Your task to perform on an android device: Search for rayovac triple a on bestbuy, select the first entry, add it to the cart, then select checkout. Image 0: 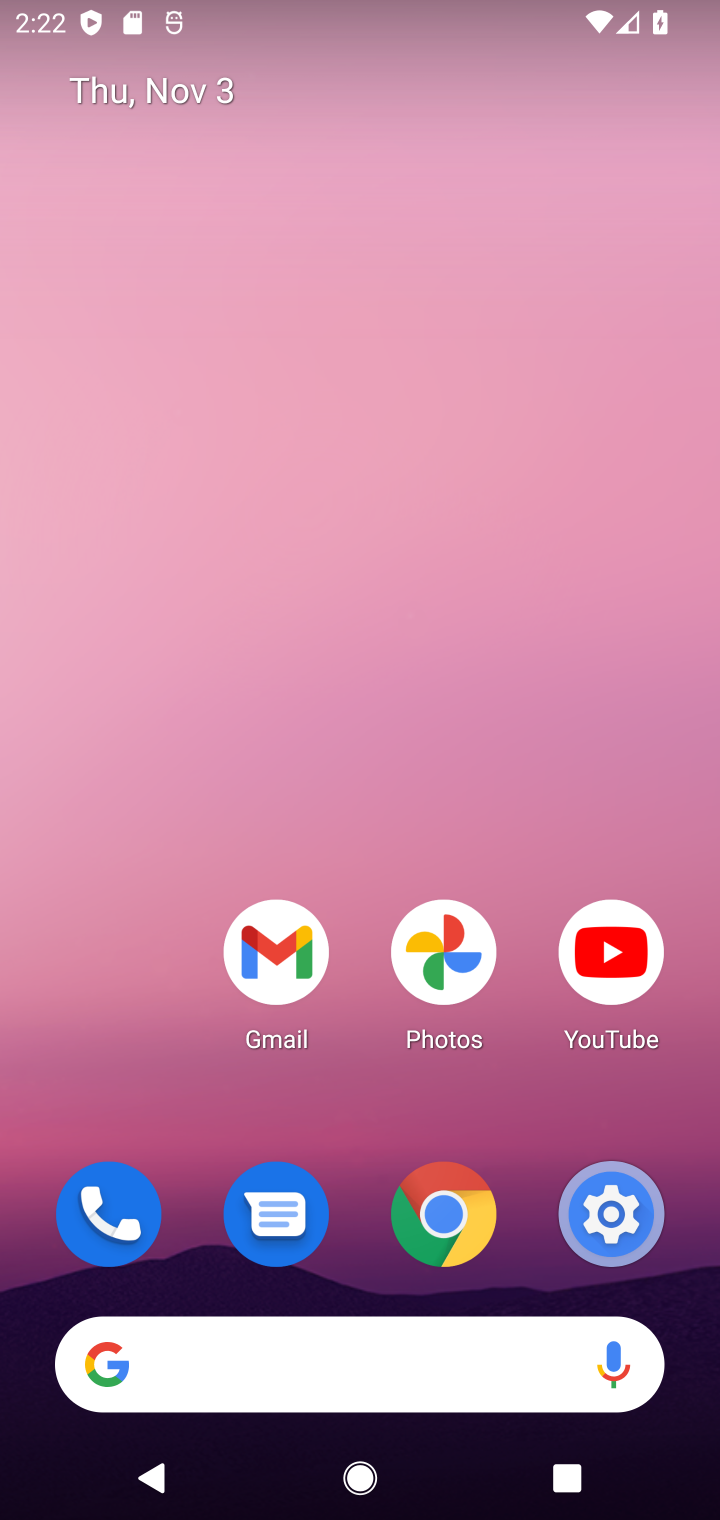
Step 0: click (258, 1368)
Your task to perform on an android device: Search for rayovac triple a on bestbuy, select the first entry, add it to the cart, then select checkout. Image 1: 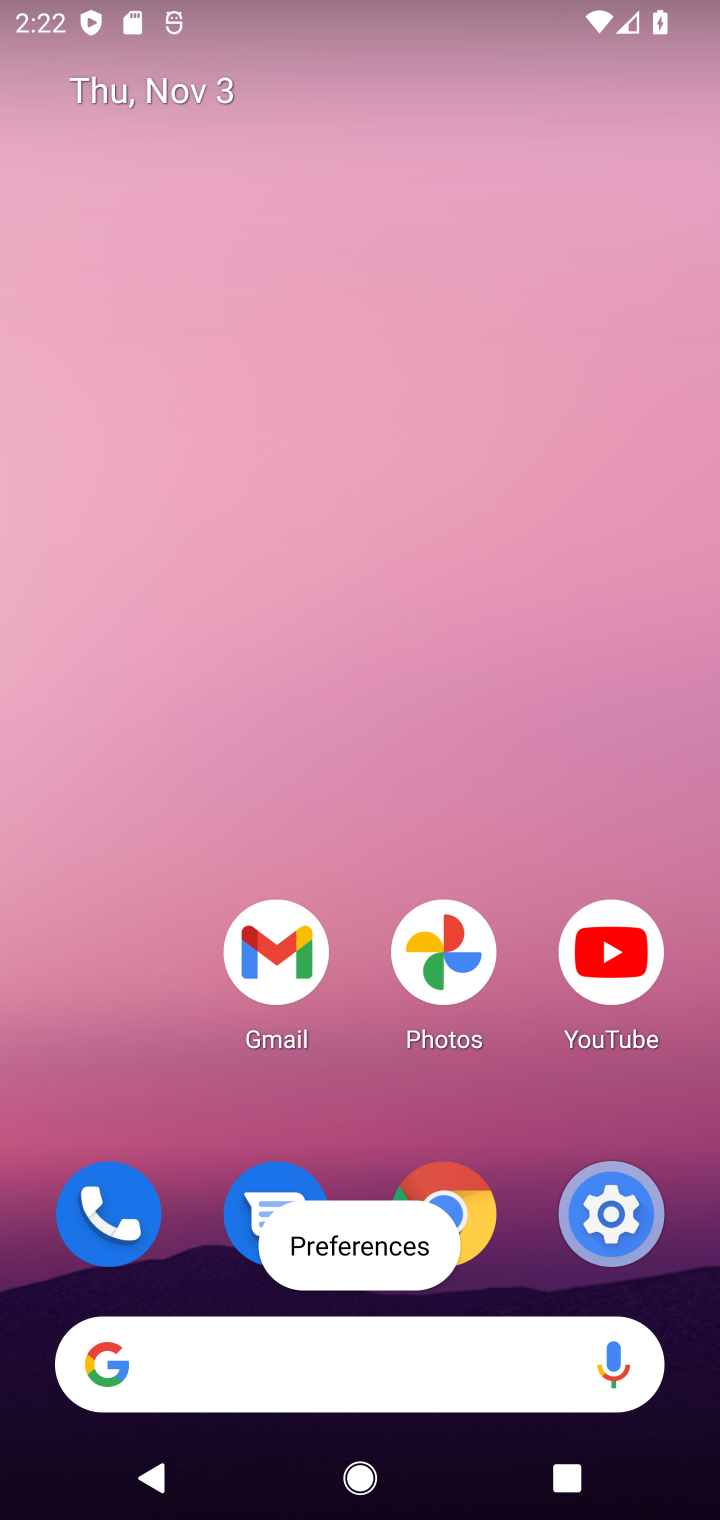
Step 1: click (261, 1366)
Your task to perform on an android device: Search for rayovac triple a on bestbuy, select the first entry, add it to the cart, then select checkout. Image 2: 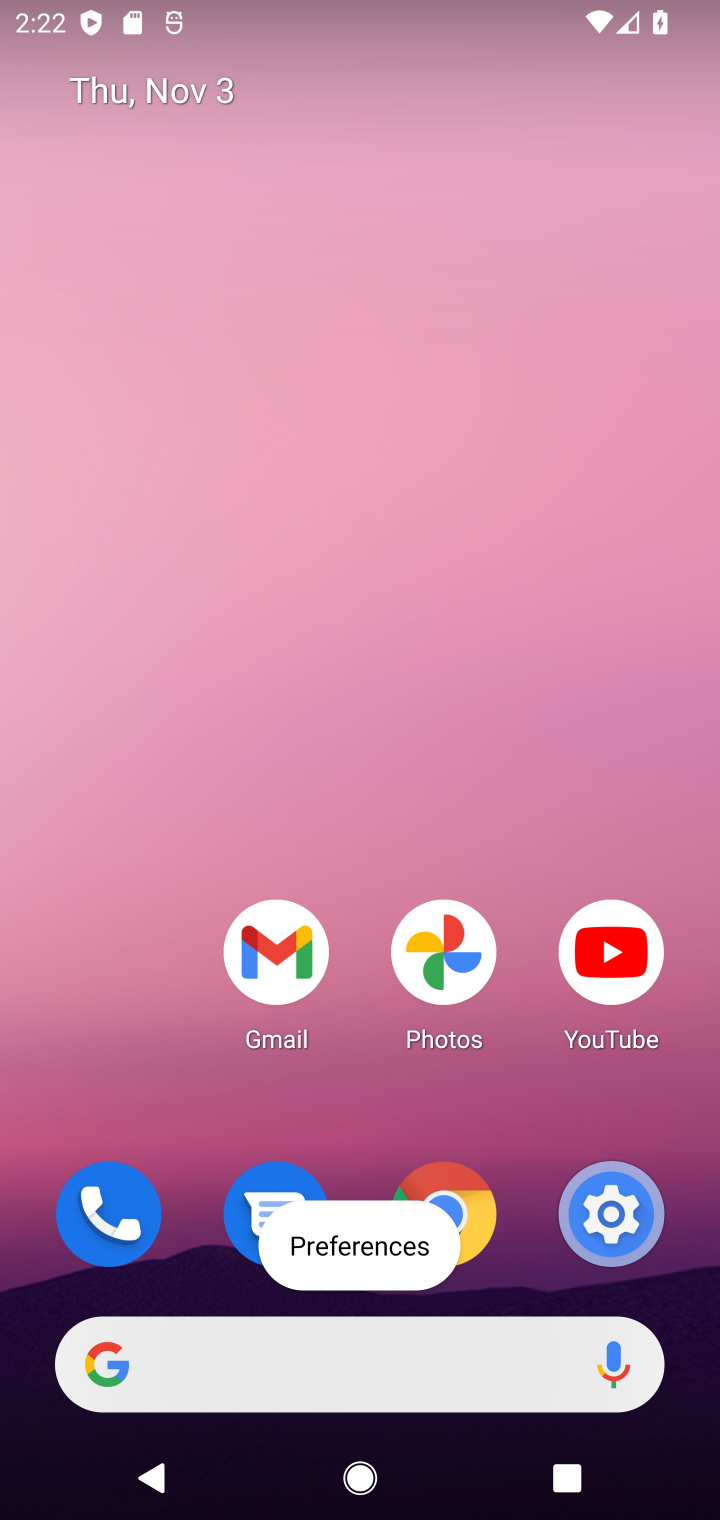
Step 2: click (290, 1374)
Your task to perform on an android device: Search for rayovac triple a on bestbuy, select the first entry, add it to the cart, then select checkout. Image 3: 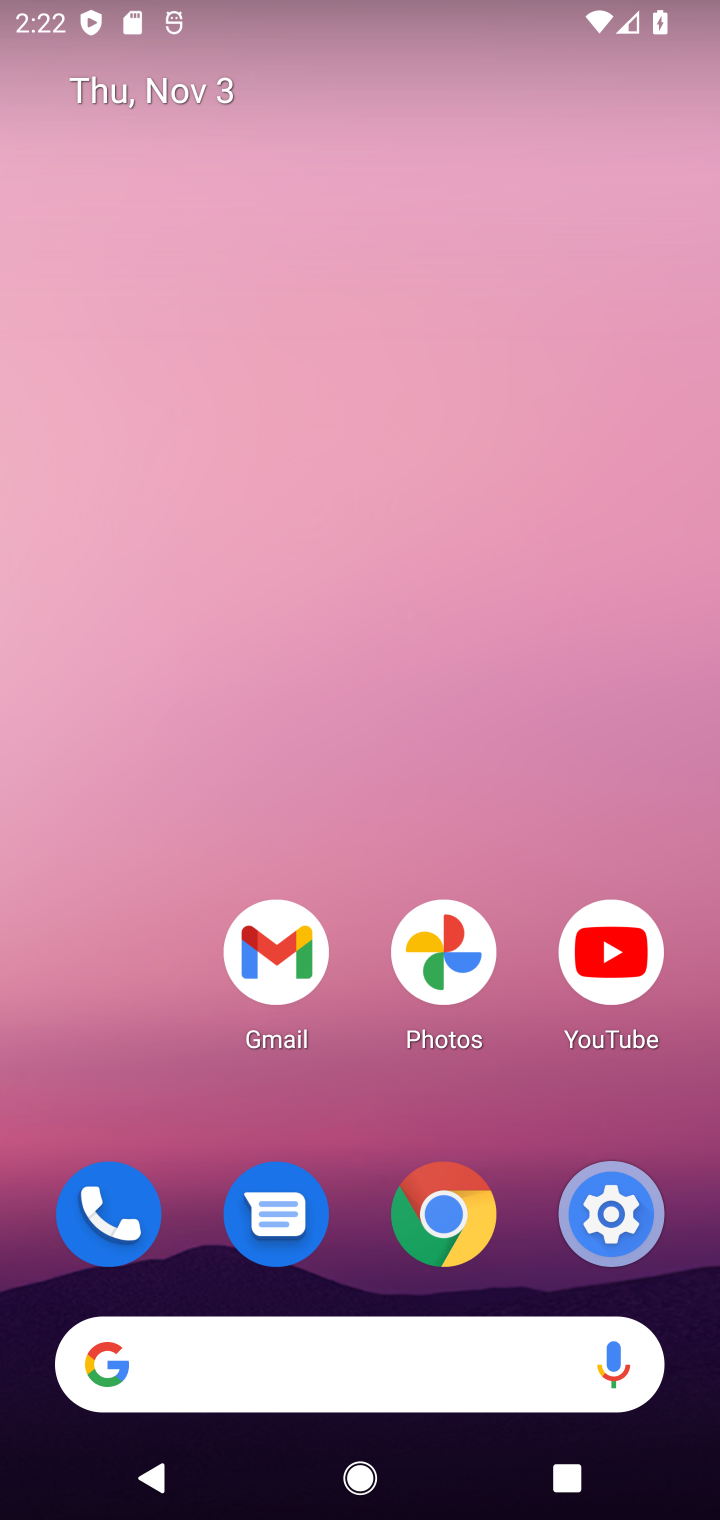
Step 3: click (290, 1374)
Your task to perform on an android device: Search for rayovac triple a on bestbuy, select the first entry, add it to the cart, then select checkout. Image 4: 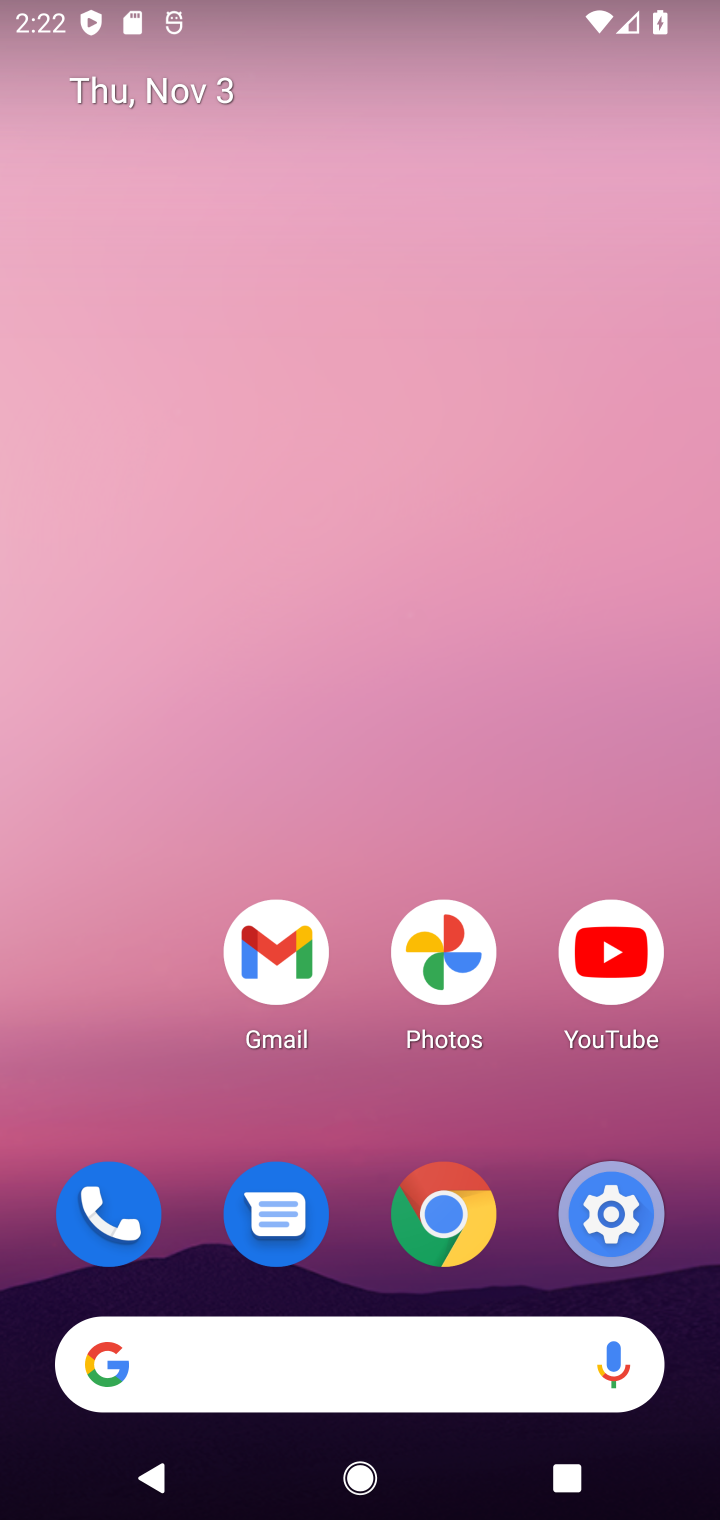
Step 4: click (292, 1374)
Your task to perform on an android device: Search for rayovac triple a on bestbuy, select the first entry, add it to the cart, then select checkout. Image 5: 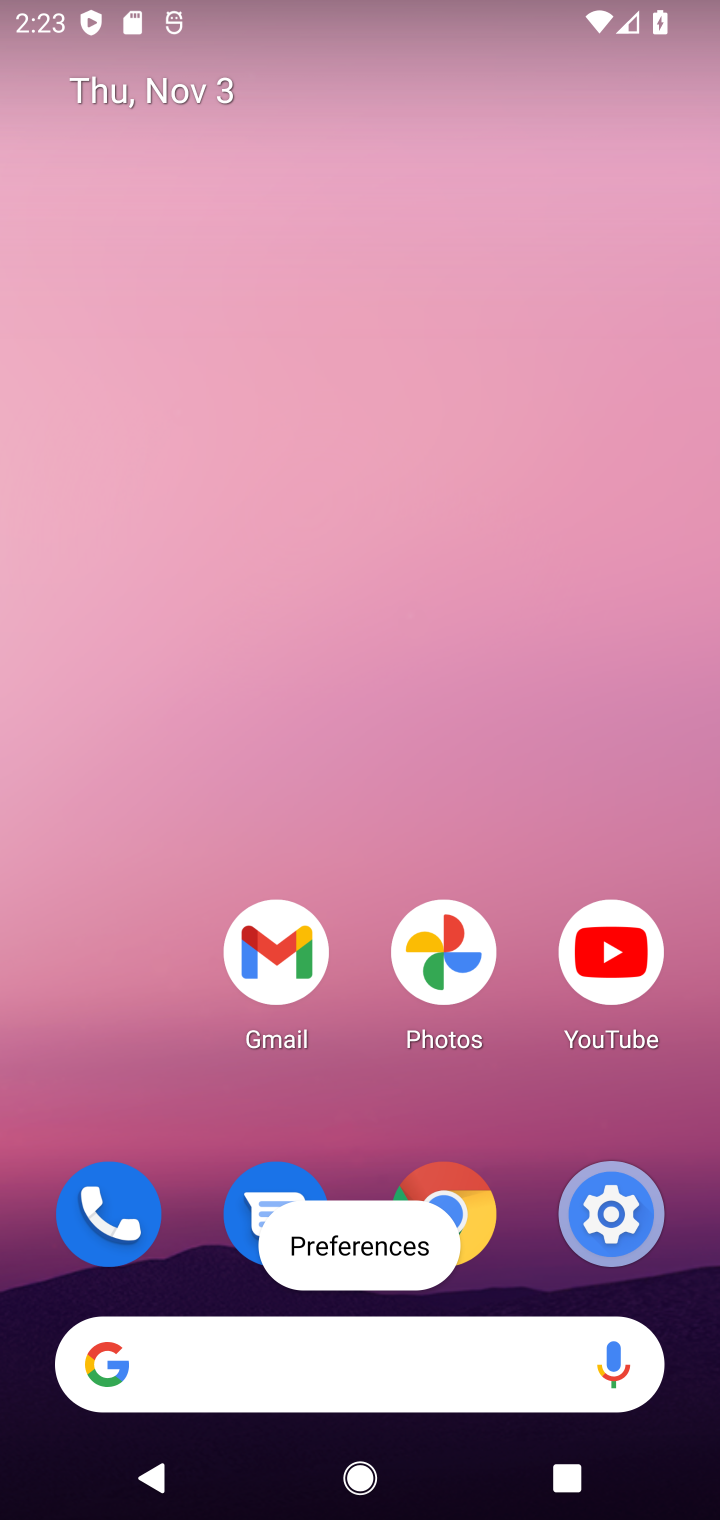
Step 5: click (292, 1374)
Your task to perform on an android device: Search for rayovac triple a on bestbuy, select the first entry, add it to the cart, then select checkout. Image 6: 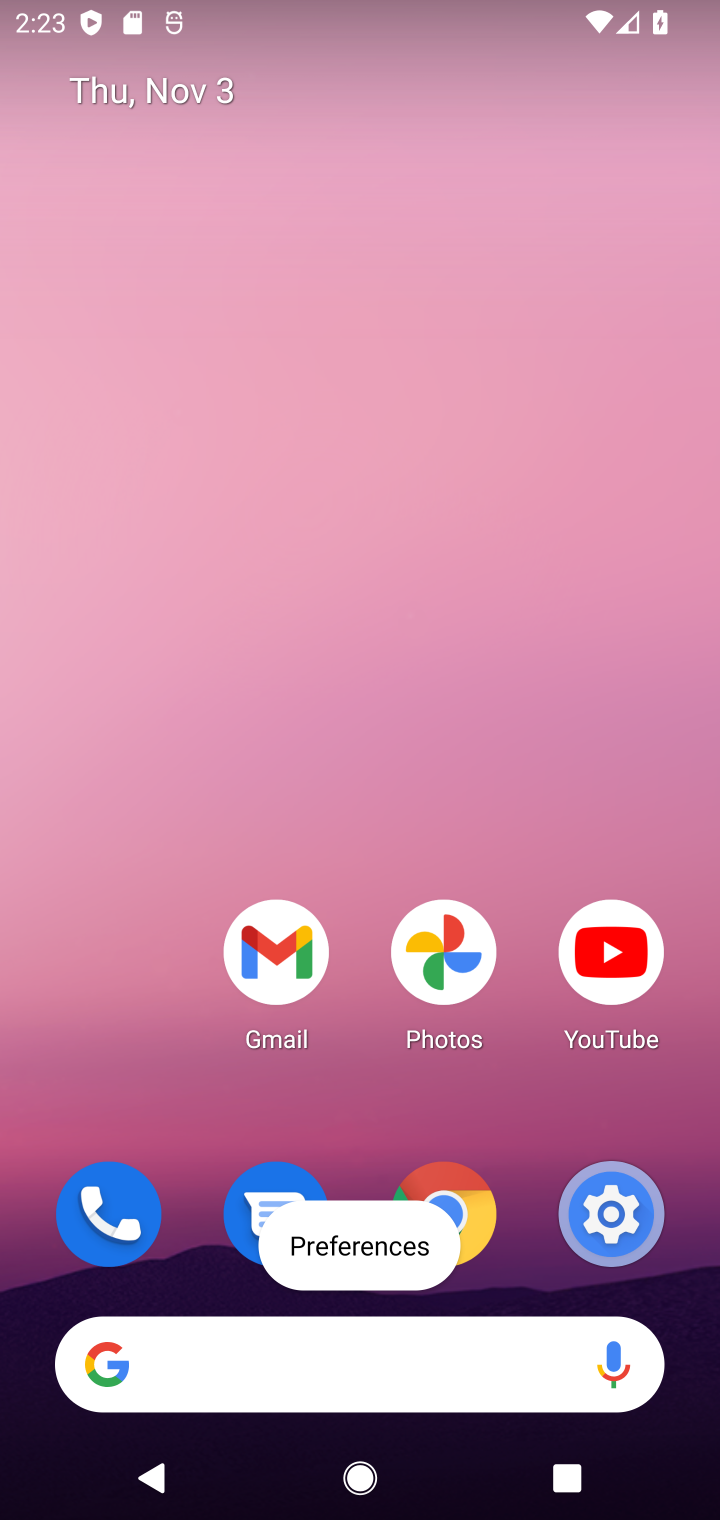
Step 6: click (461, 1220)
Your task to perform on an android device: Search for rayovac triple a on bestbuy, select the first entry, add it to the cart, then select checkout. Image 7: 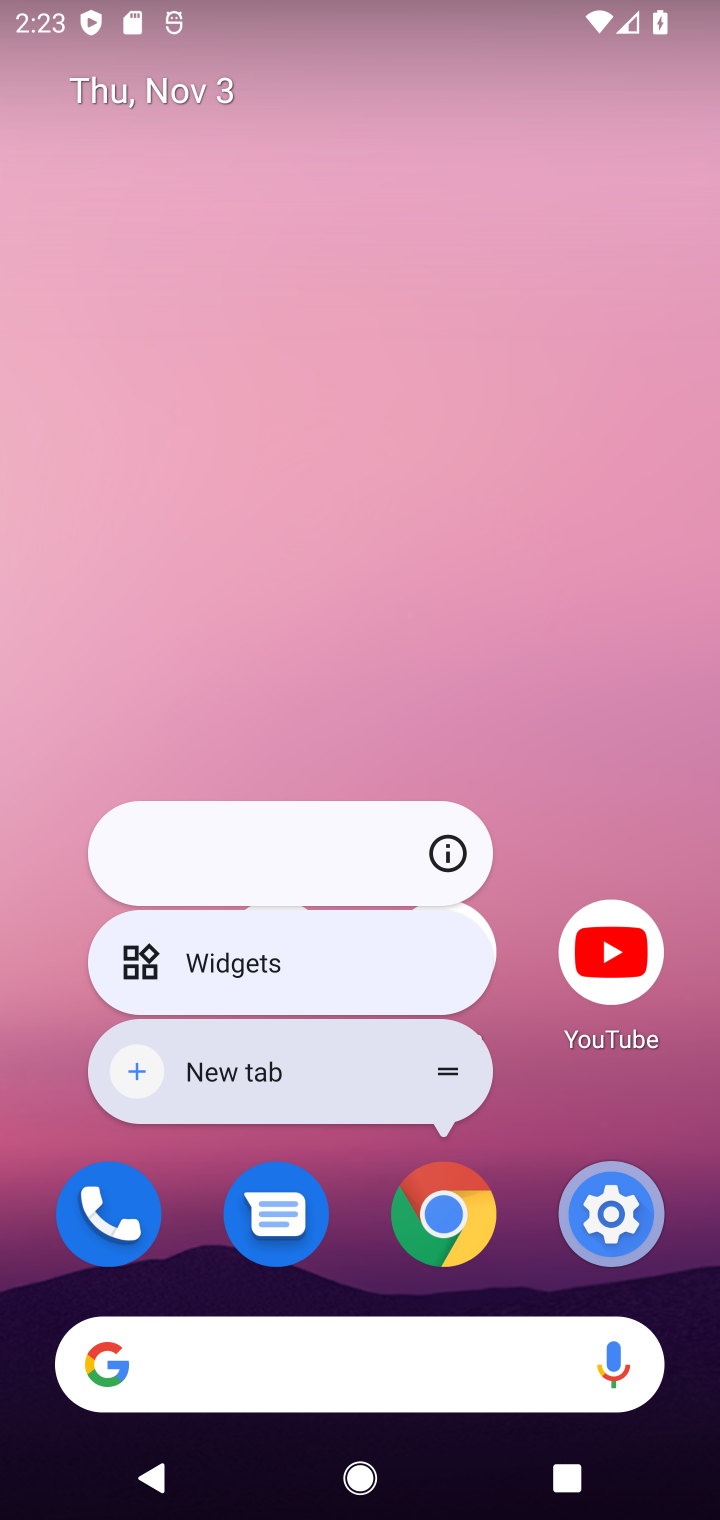
Step 7: click (445, 1238)
Your task to perform on an android device: Search for rayovac triple a on bestbuy, select the first entry, add it to the cart, then select checkout. Image 8: 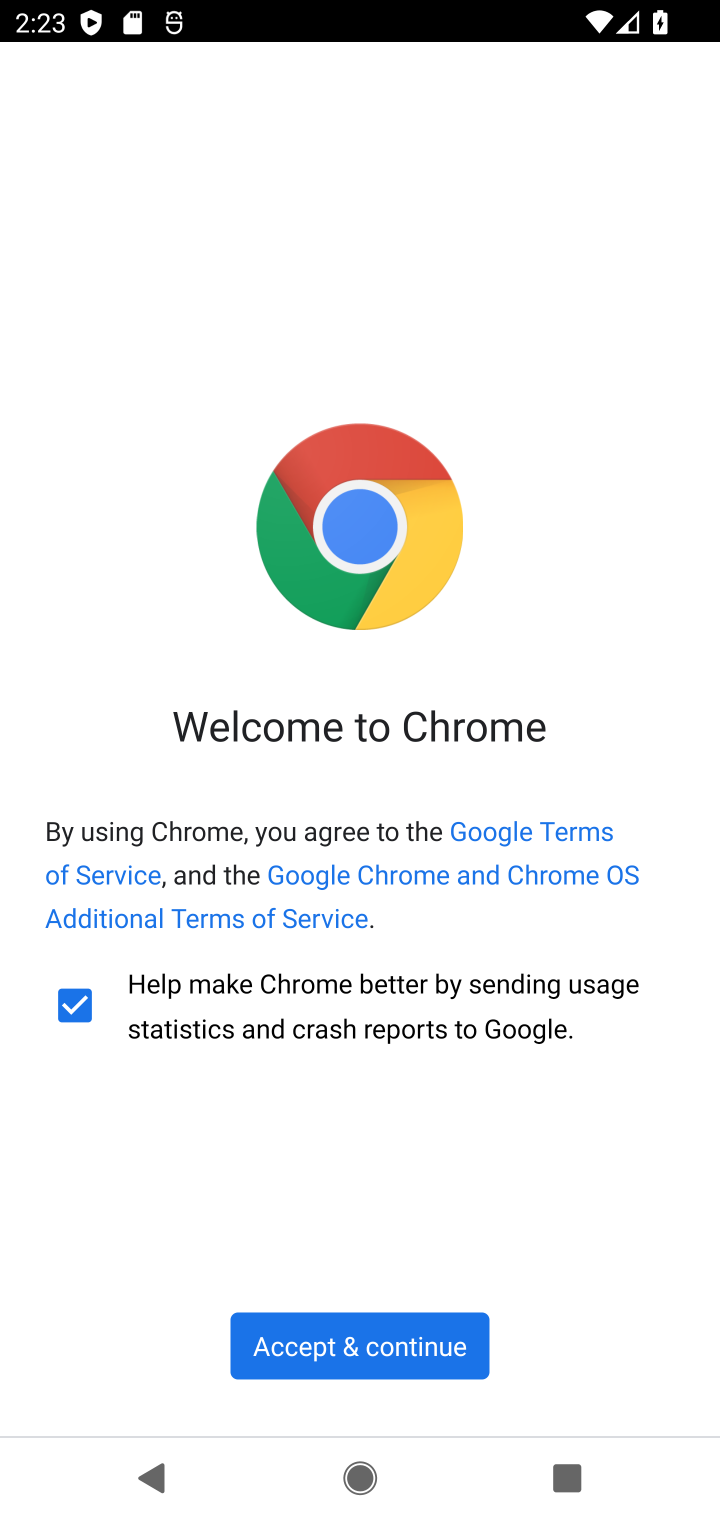
Step 8: click (346, 1368)
Your task to perform on an android device: Search for rayovac triple a on bestbuy, select the first entry, add it to the cart, then select checkout. Image 9: 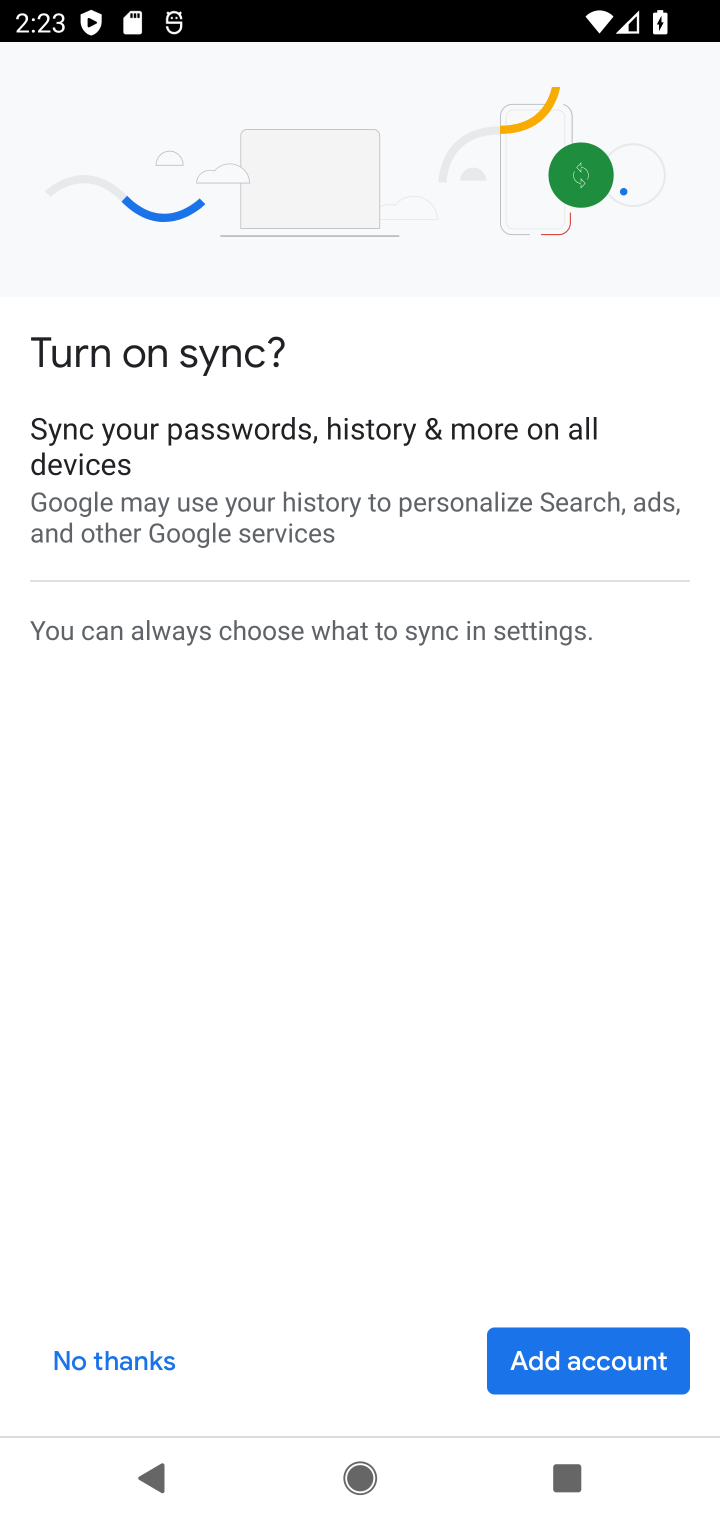
Step 9: click (521, 1365)
Your task to perform on an android device: Search for rayovac triple a on bestbuy, select the first entry, add it to the cart, then select checkout. Image 10: 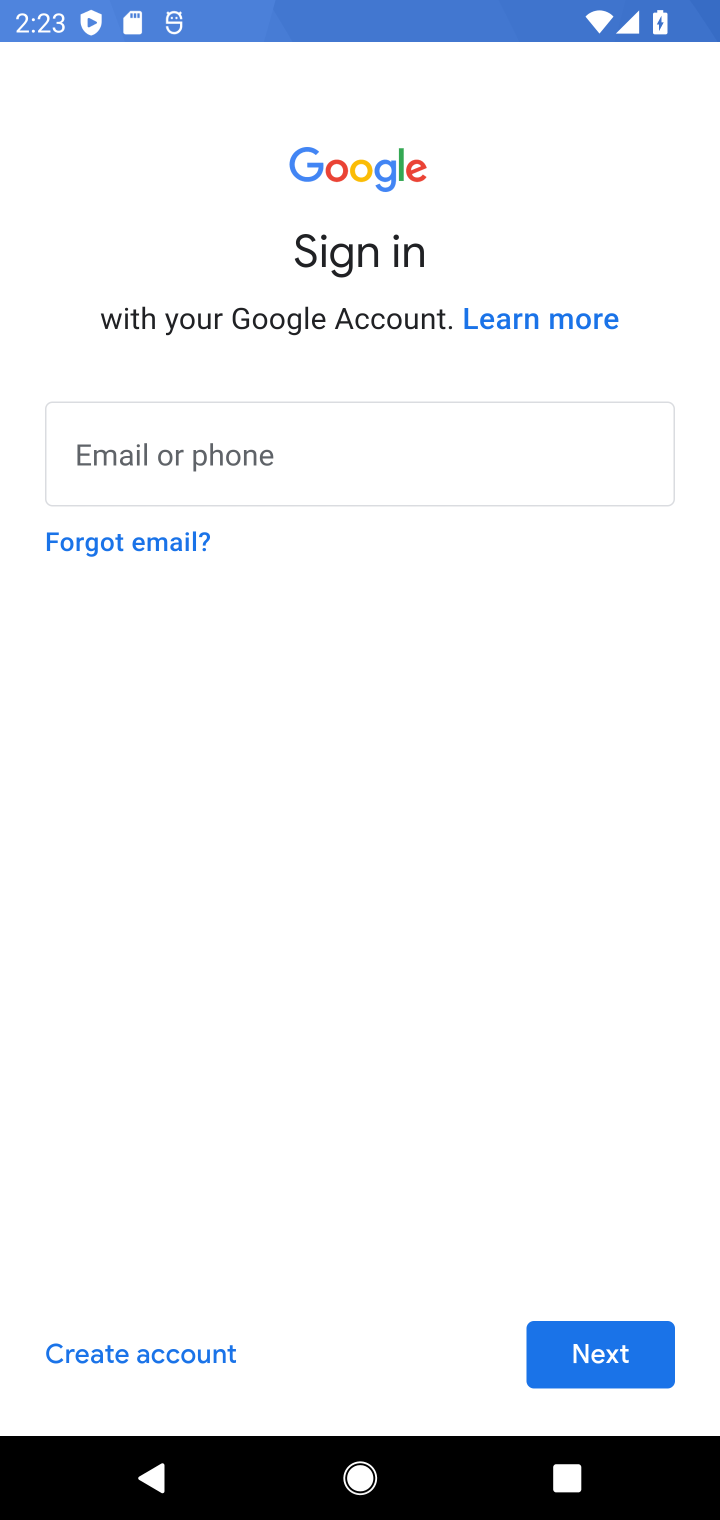
Step 10: click (589, 1350)
Your task to perform on an android device: Search for rayovac triple a on bestbuy, select the first entry, add it to the cart, then select checkout. Image 11: 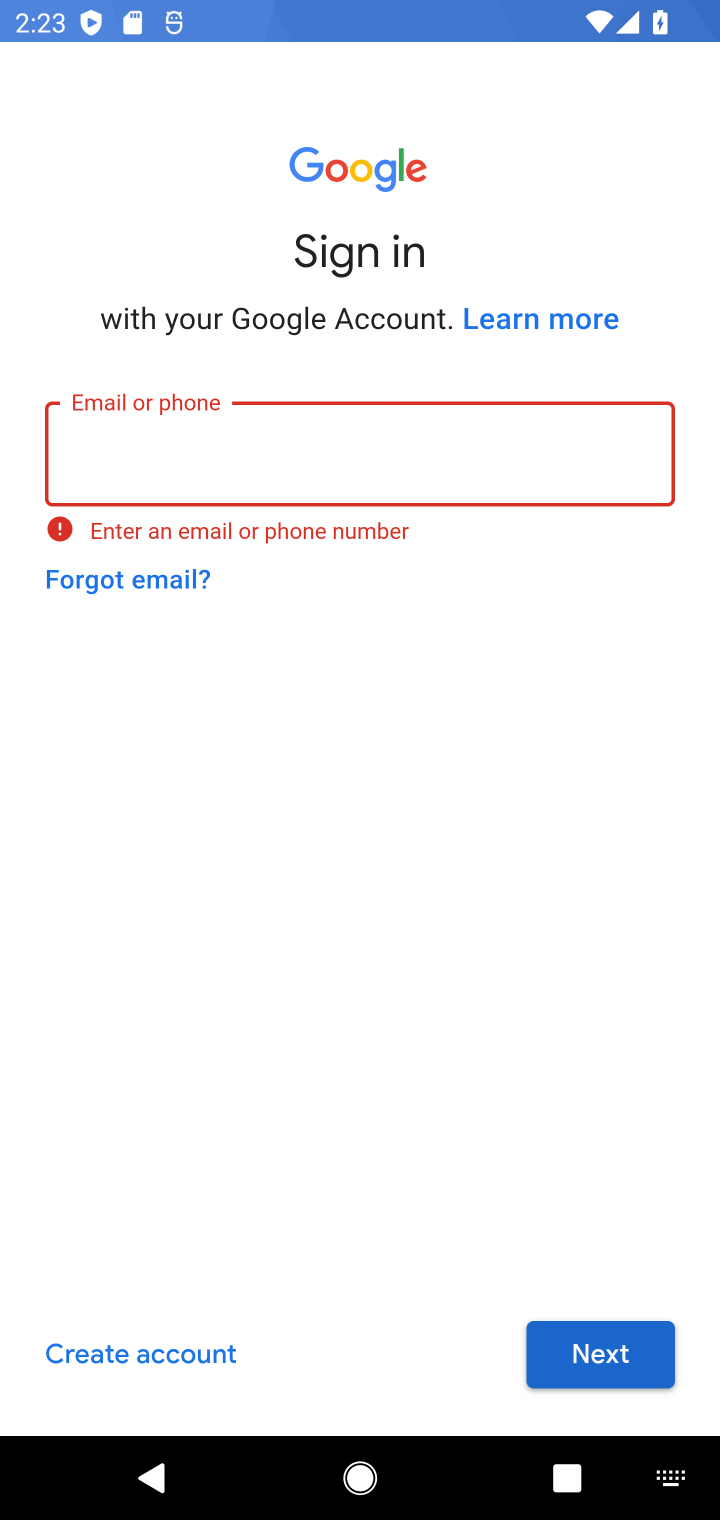
Step 11: press home button
Your task to perform on an android device: Search for rayovac triple a on bestbuy, select the first entry, add it to the cart, then select checkout. Image 12: 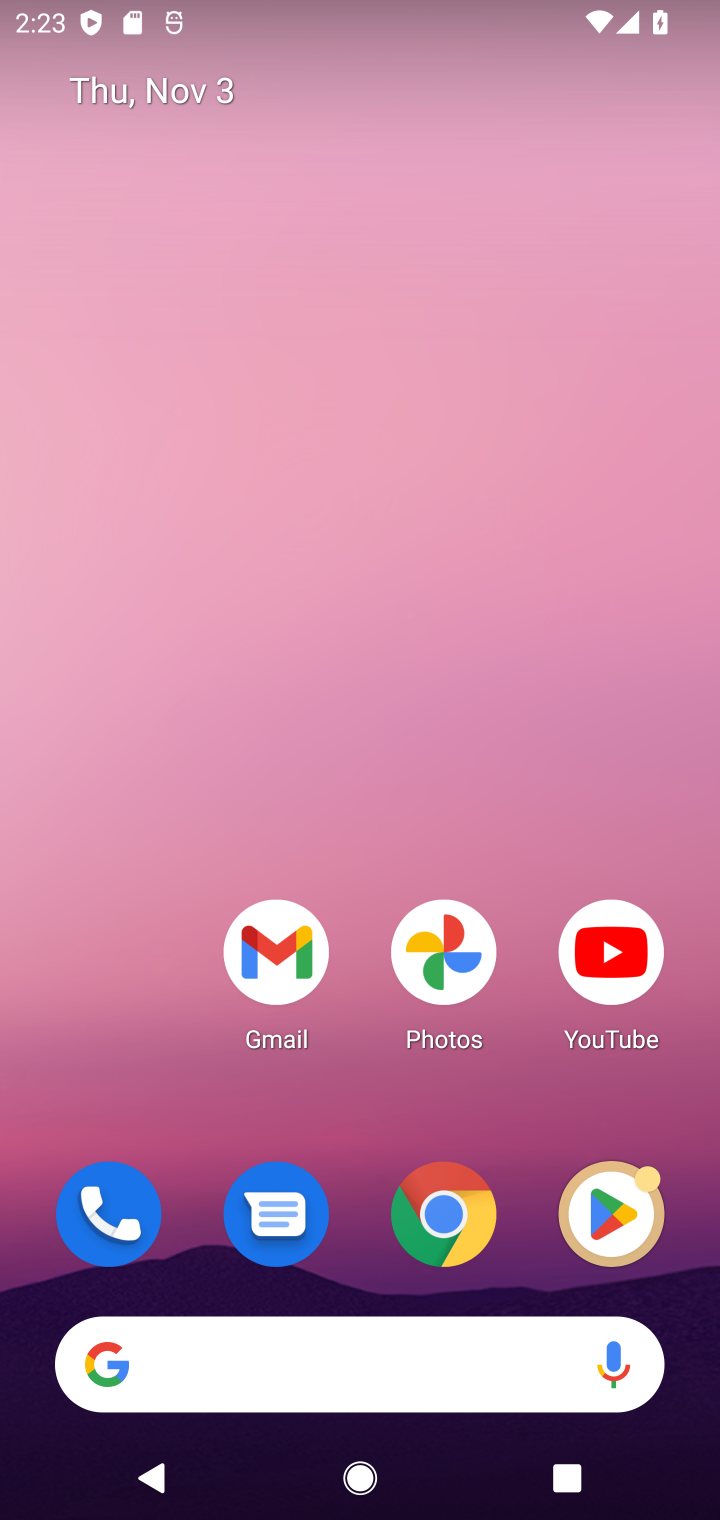
Step 12: click (333, 1356)
Your task to perform on an android device: Search for rayovac triple a on bestbuy, select the first entry, add it to the cart, then select checkout. Image 13: 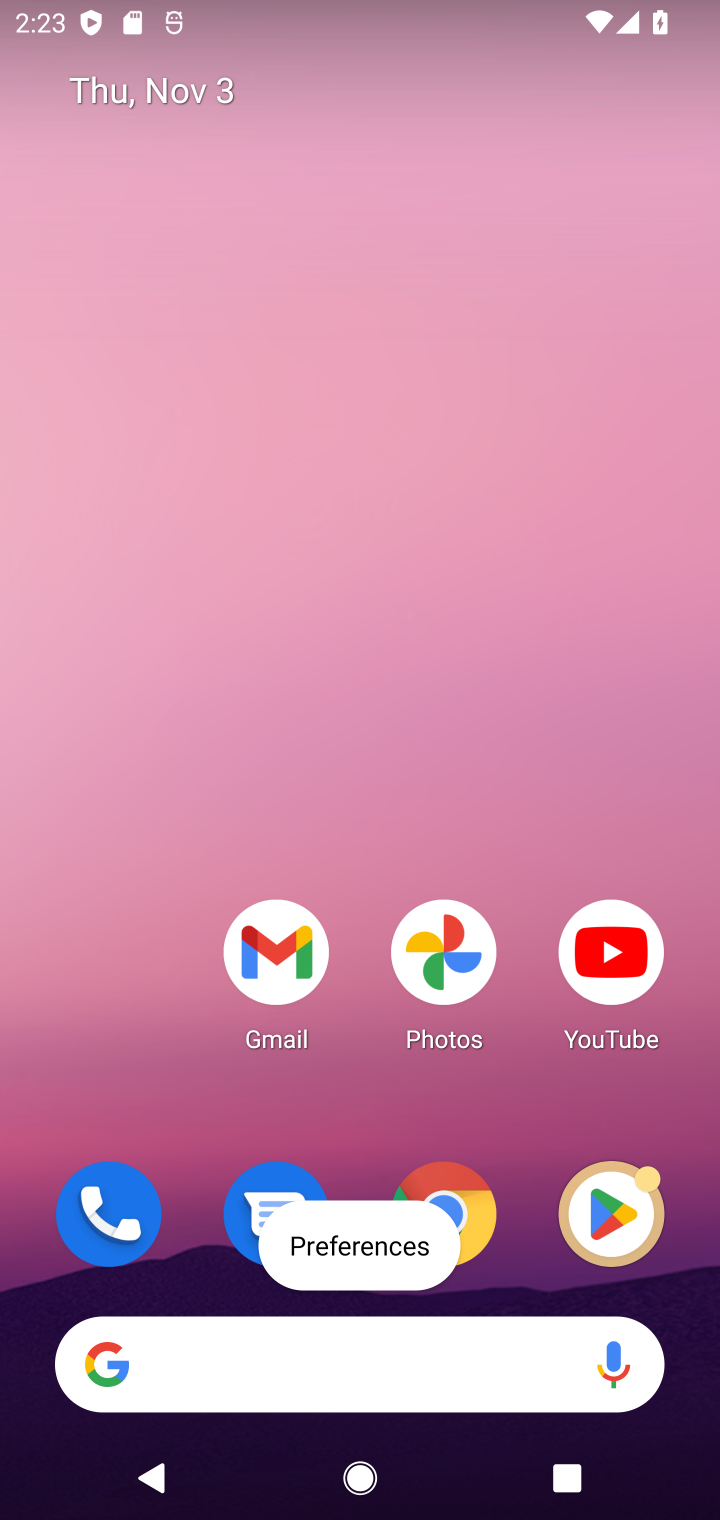
Step 13: click (449, 1216)
Your task to perform on an android device: Search for rayovac triple a on bestbuy, select the first entry, add it to the cart, then select checkout. Image 14: 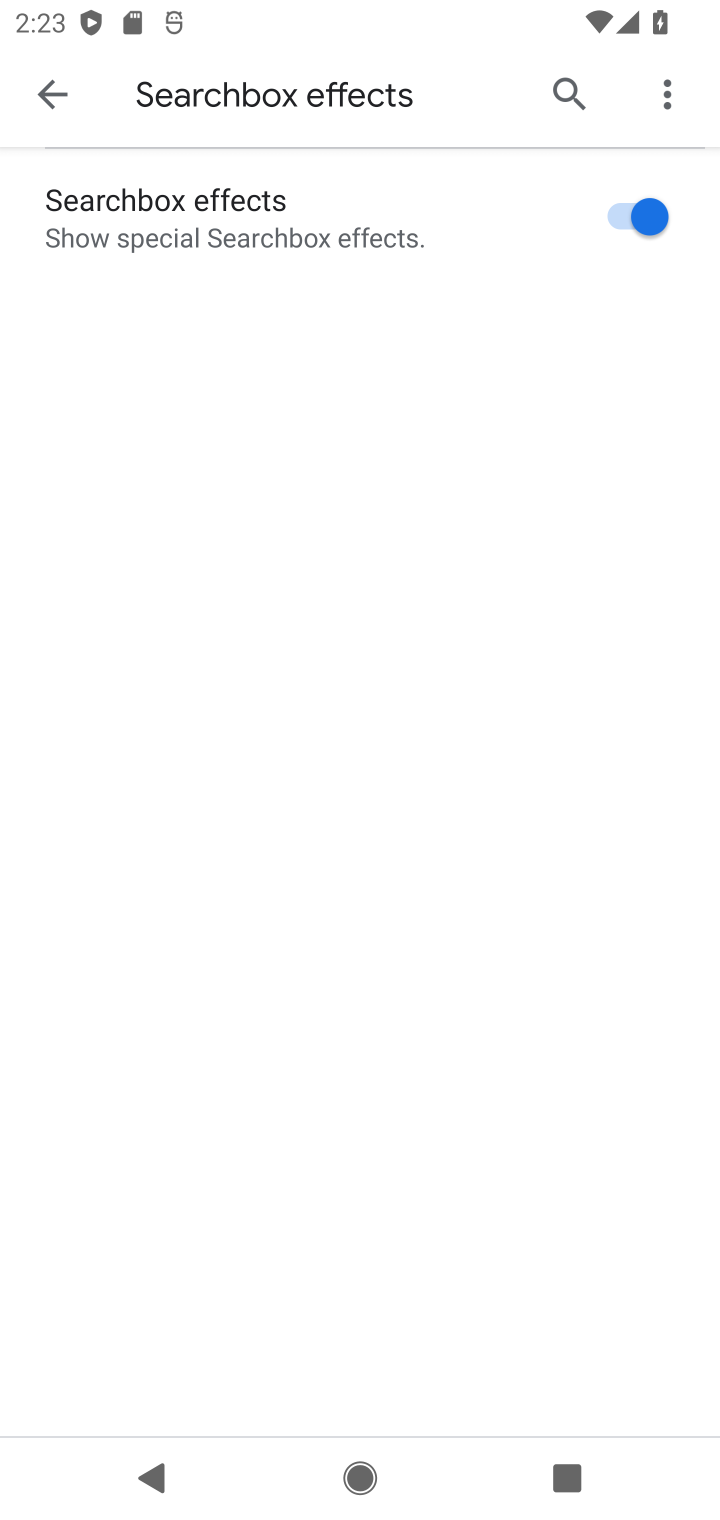
Step 14: click (63, 86)
Your task to perform on an android device: Search for rayovac triple a on bestbuy, select the first entry, add it to the cart, then select checkout. Image 15: 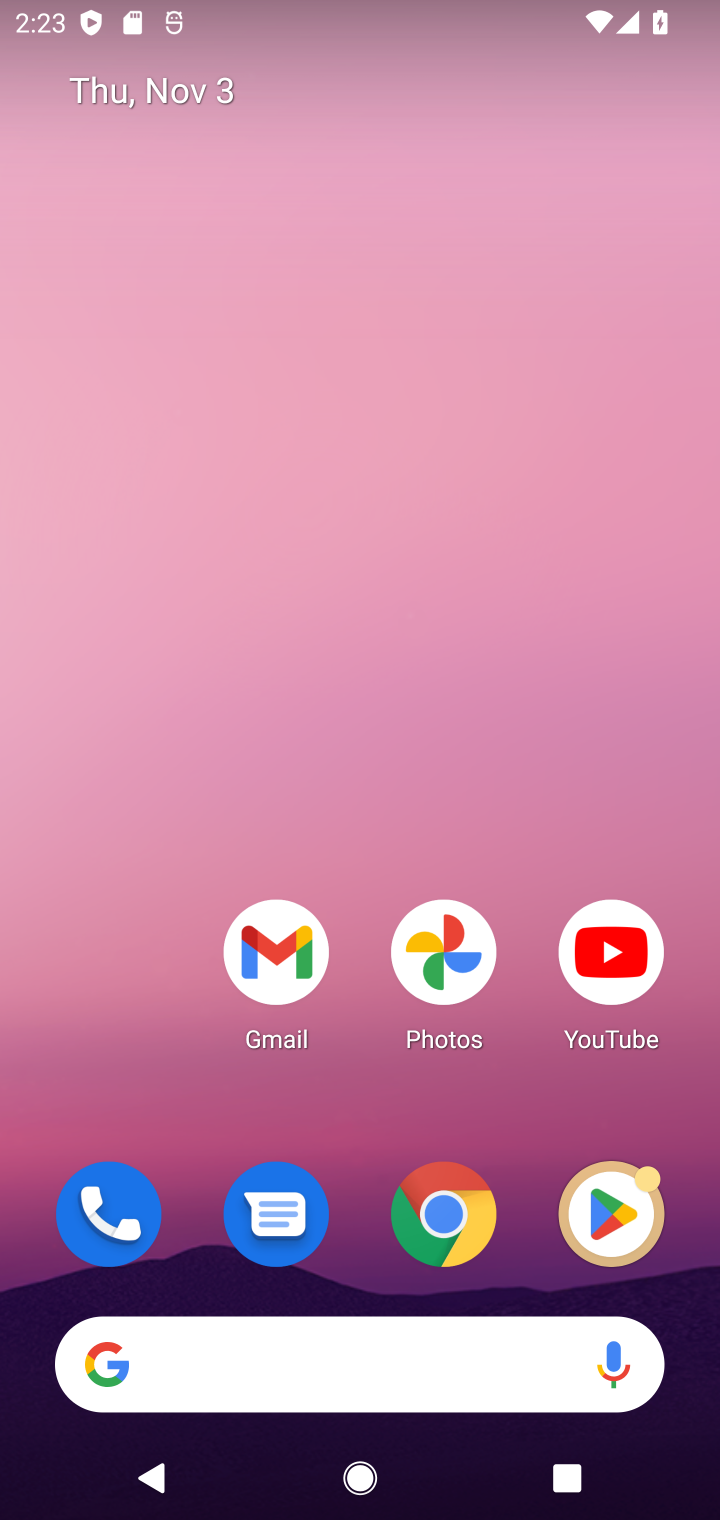
Step 15: click (444, 1332)
Your task to perform on an android device: Search for rayovac triple a on bestbuy, select the first entry, add it to the cart, then select checkout. Image 16: 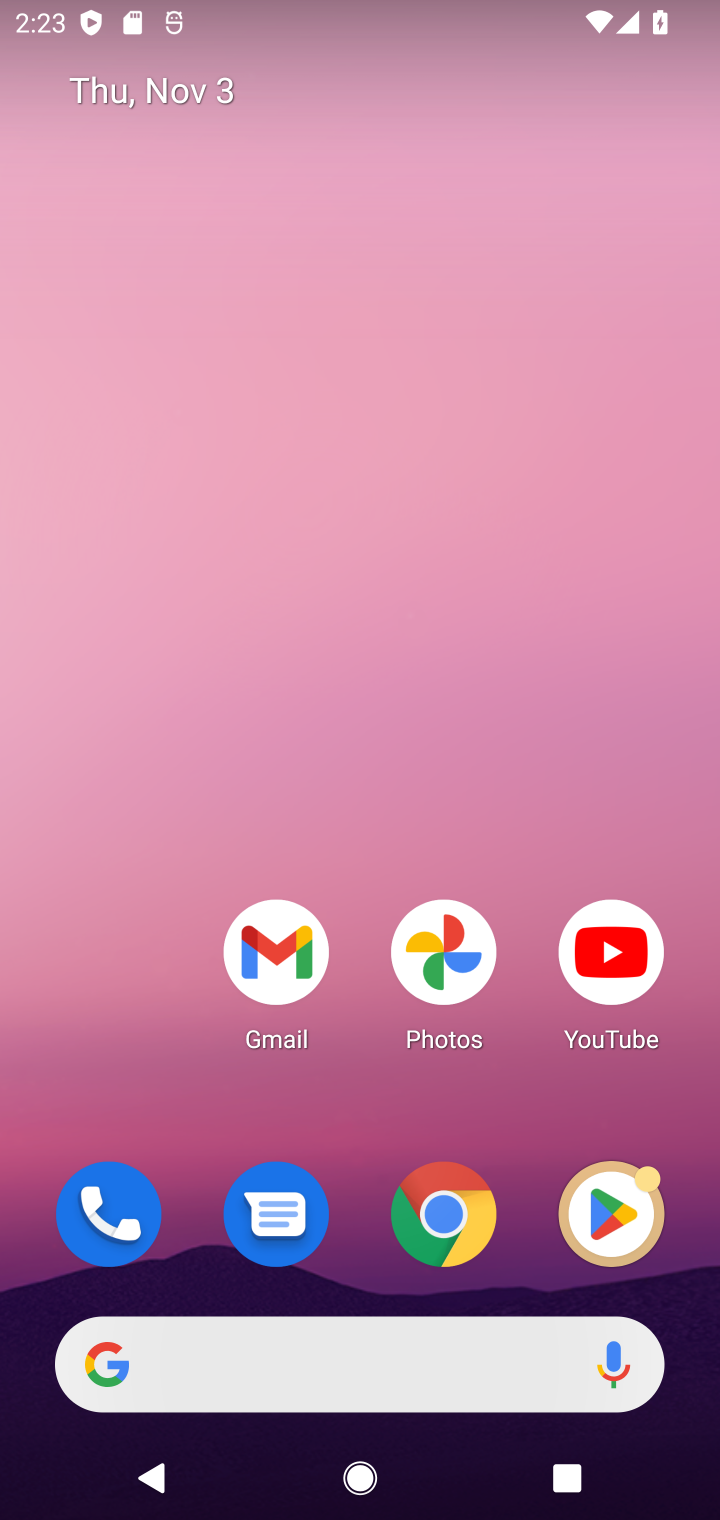
Step 16: click (444, 1340)
Your task to perform on an android device: Search for rayovac triple a on bestbuy, select the first entry, add it to the cart, then select checkout. Image 17: 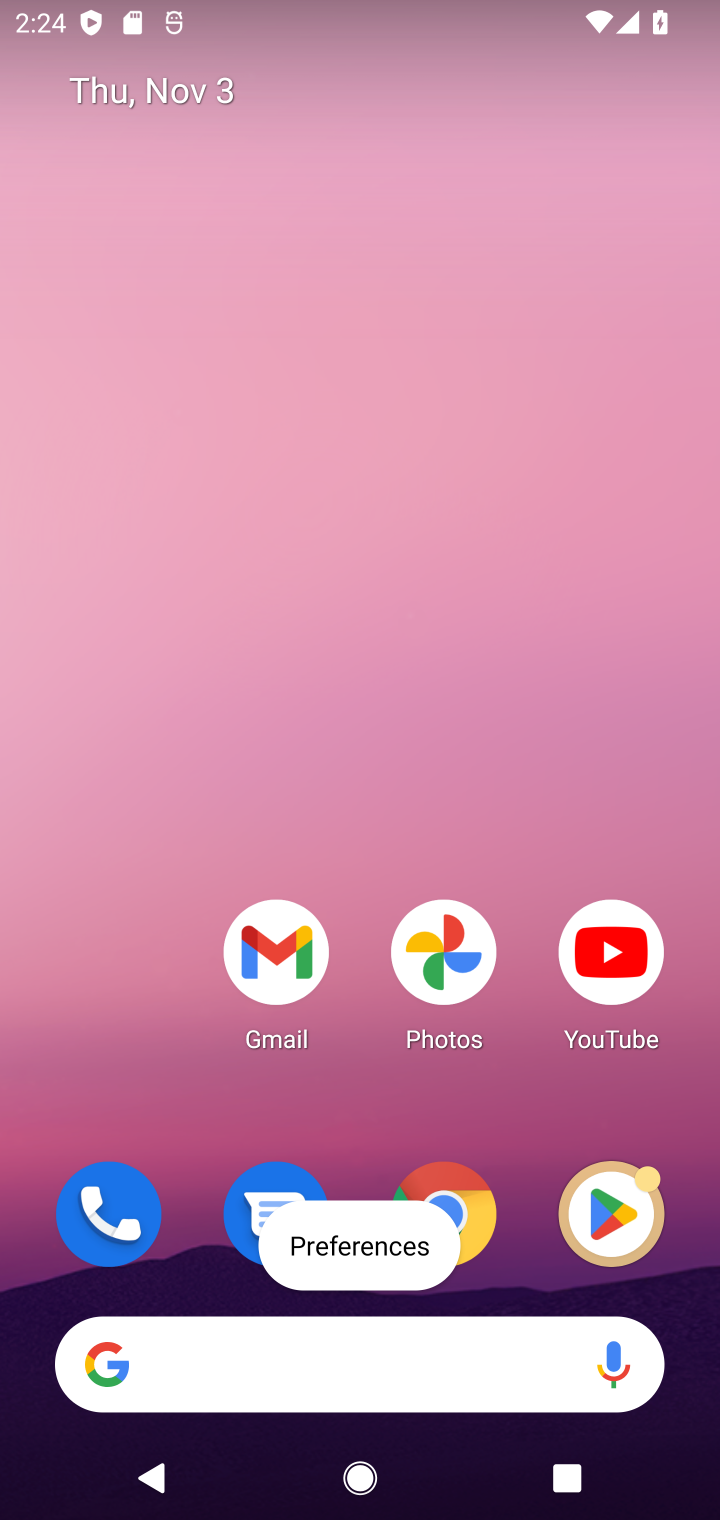
Step 17: click (465, 1213)
Your task to perform on an android device: Search for rayovac triple a on bestbuy, select the first entry, add it to the cart, then select checkout. Image 18: 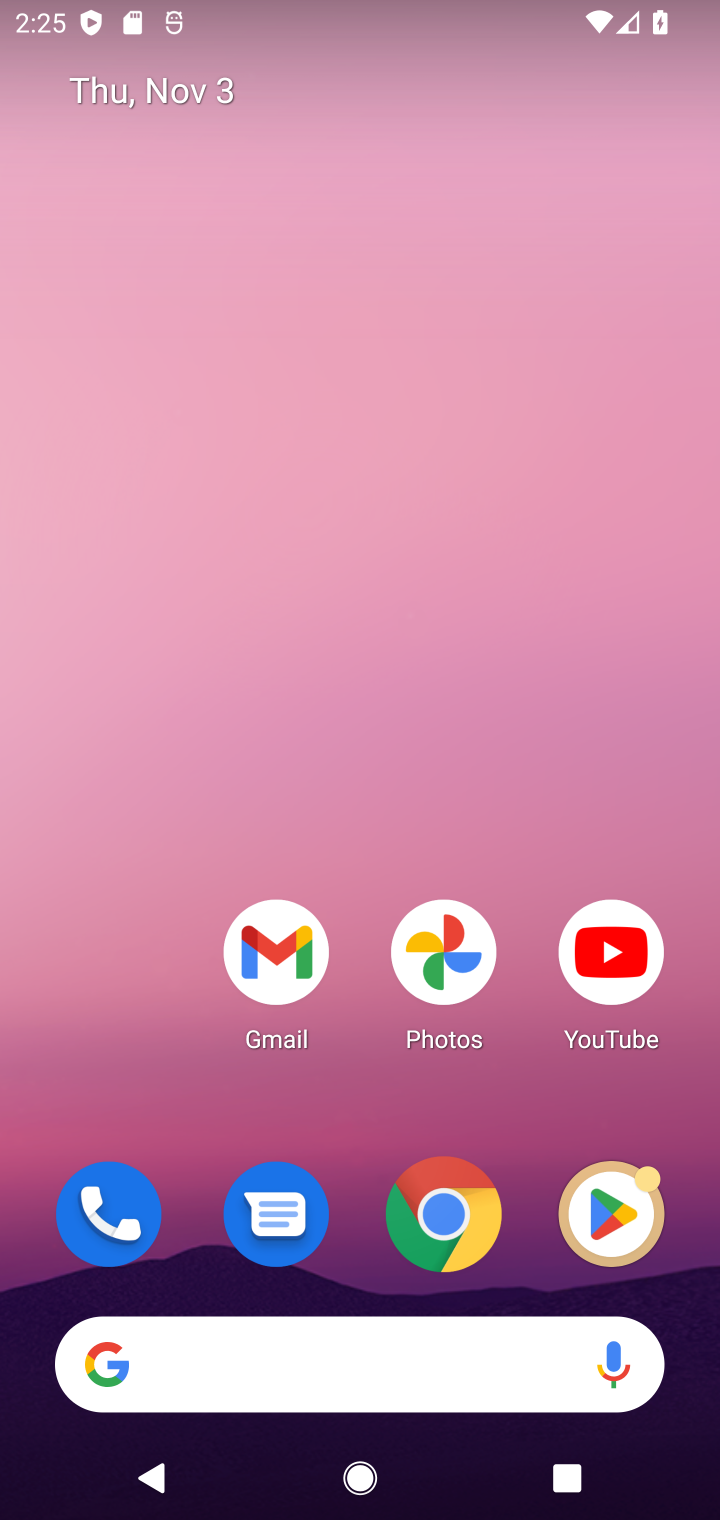
Step 18: click (445, 1210)
Your task to perform on an android device: Search for rayovac triple a on bestbuy, select the first entry, add it to the cart, then select checkout. Image 19: 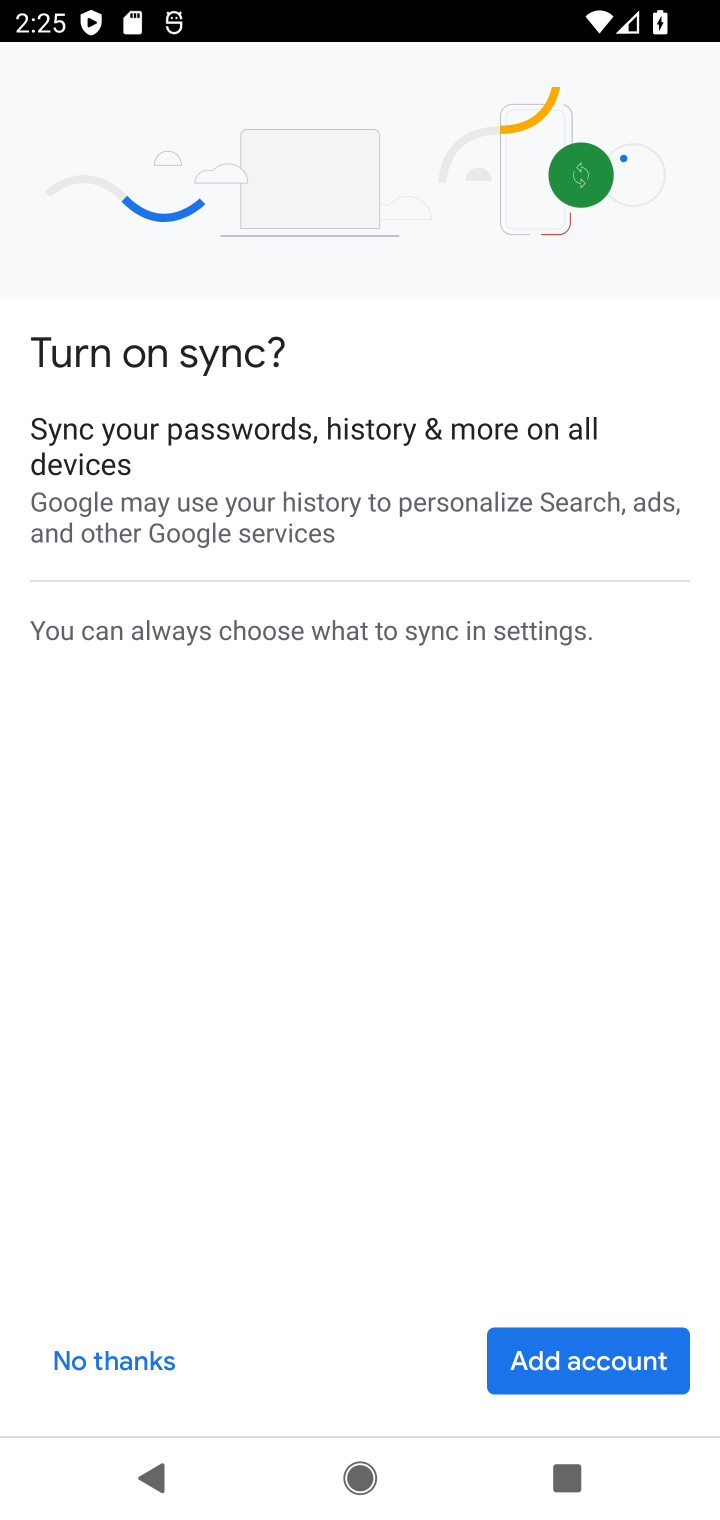
Step 19: click (264, 518)
Your task to perform on an android device: Search for rayovac triple a on bestbuy, select the first entry, add it to the cart, then select checkout. Image 20: 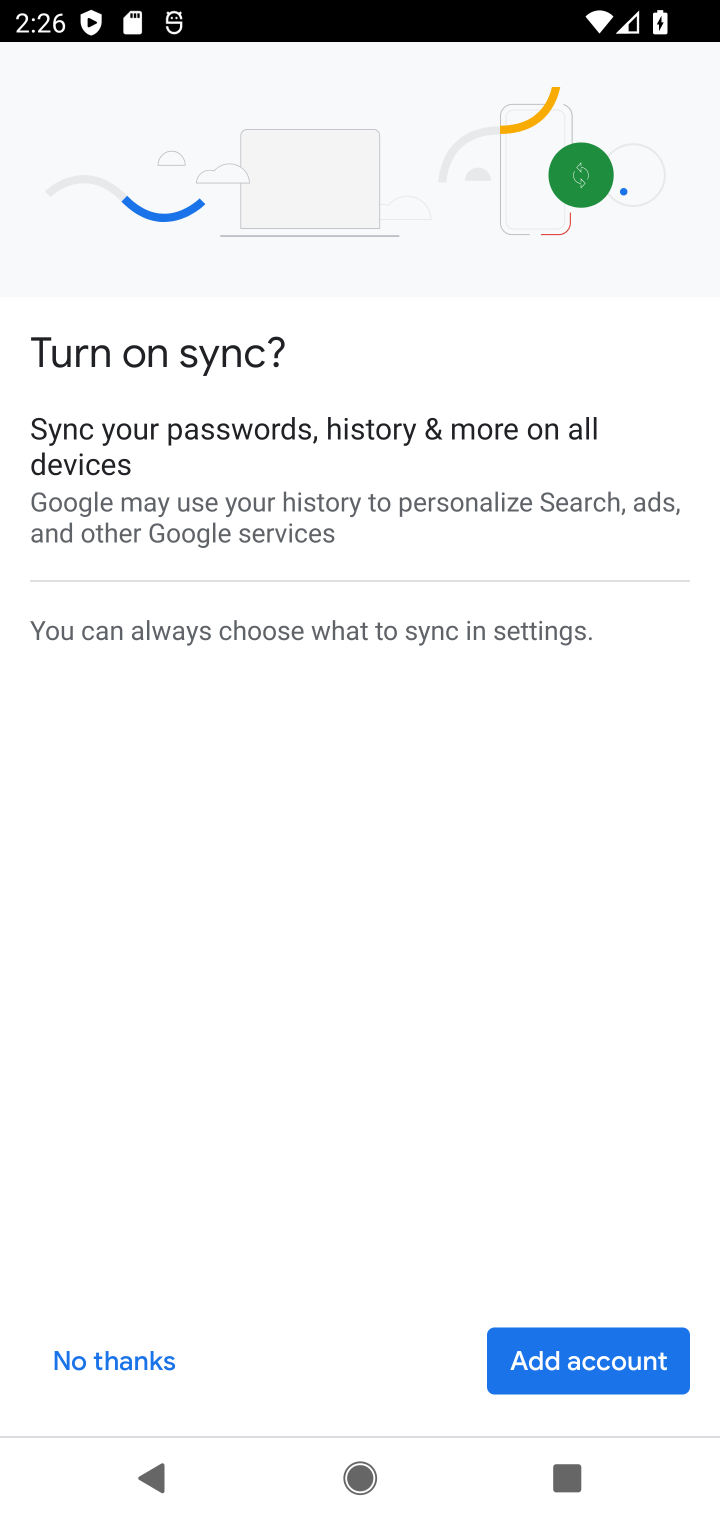
Step 20: click (158, 1370)
Your task to perform on an android device: Search for rayovac triple a on bestbuy, select the first entry, add it to the cart, then select checkout. Image 21: 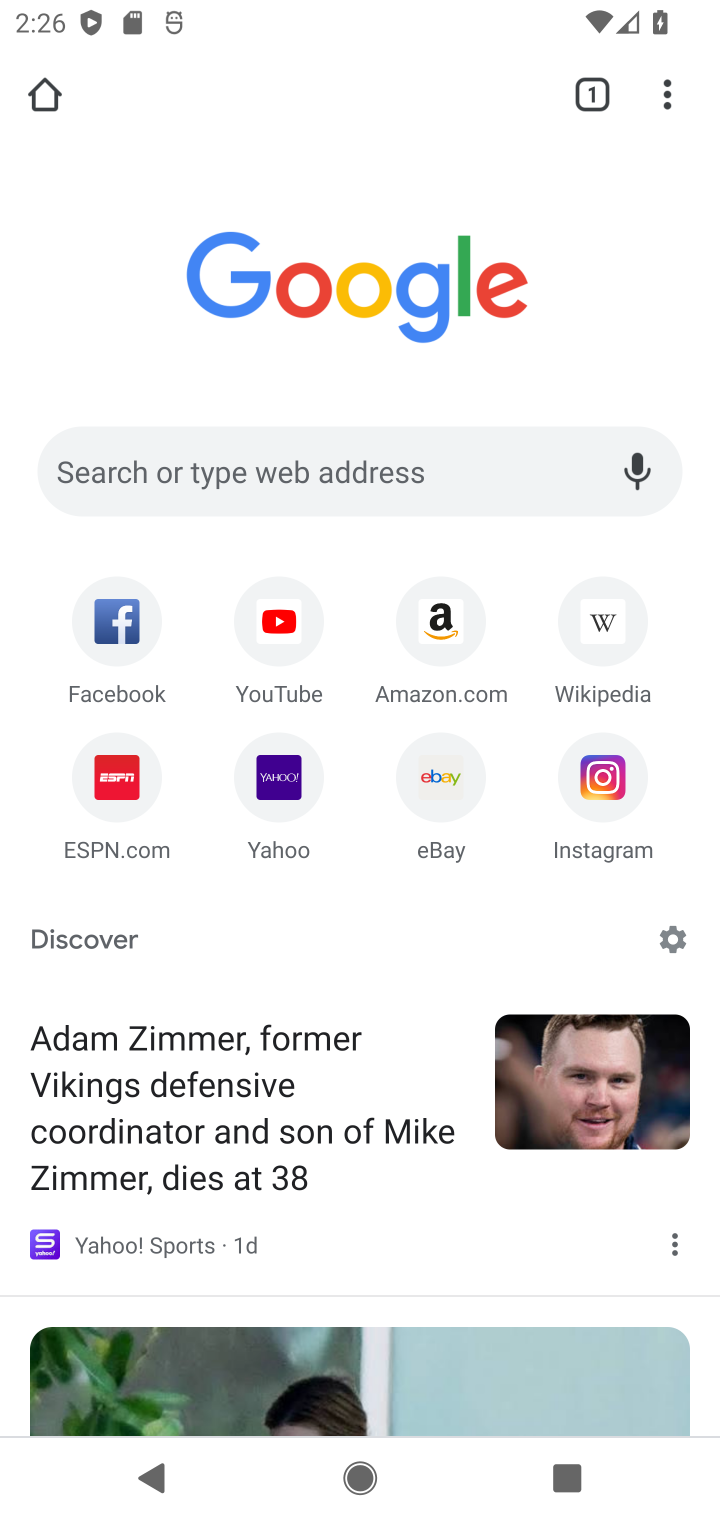
Step 21: click (314, 427)
Your task to perform on an android device: Search for rayovac triple a on bestbuy, select the first entry, add it to the cart, then select checkout. Image 22: 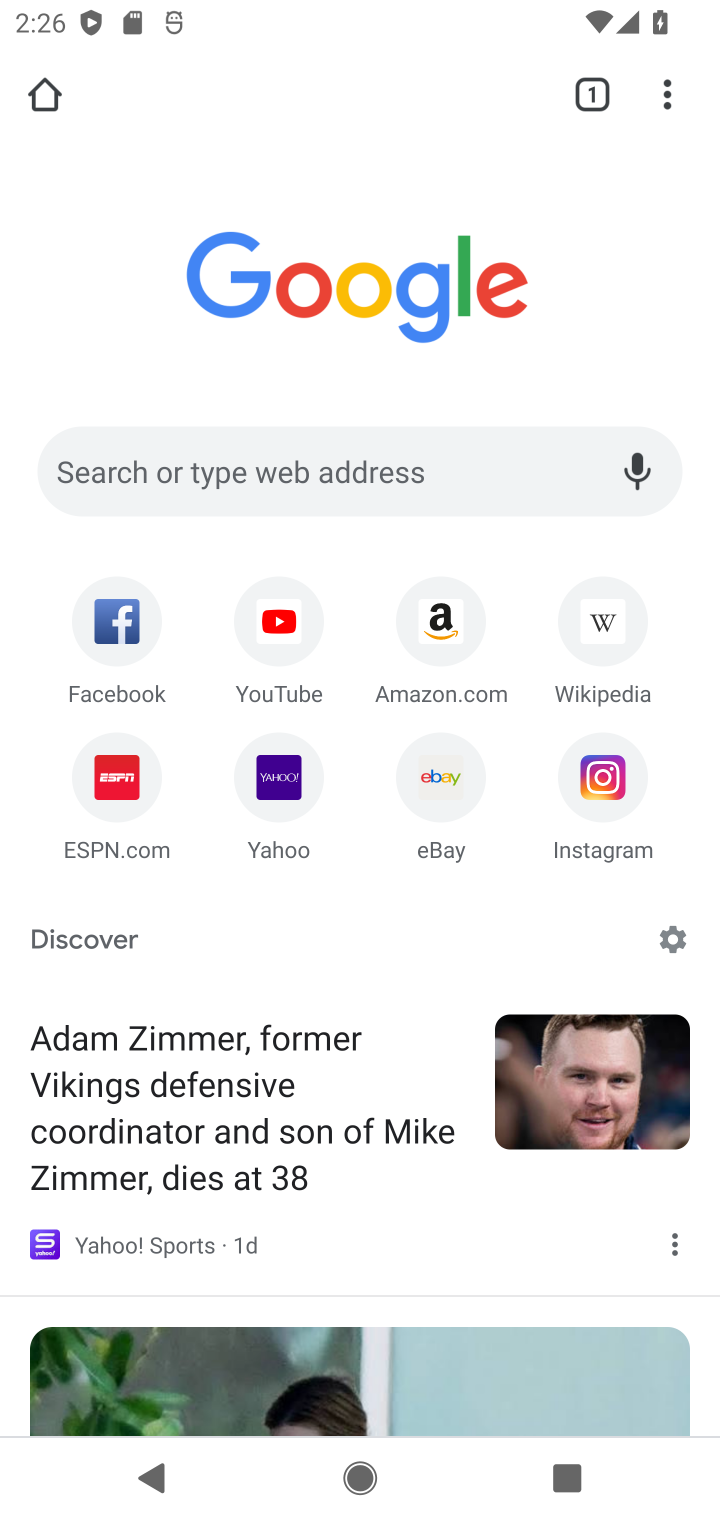
Step 22: click (312, 489)
Your task to perform on an android device: Search for rayovac triple a on bestbuy, select the first entry, add it to the cart, then select checkout. Image 23: 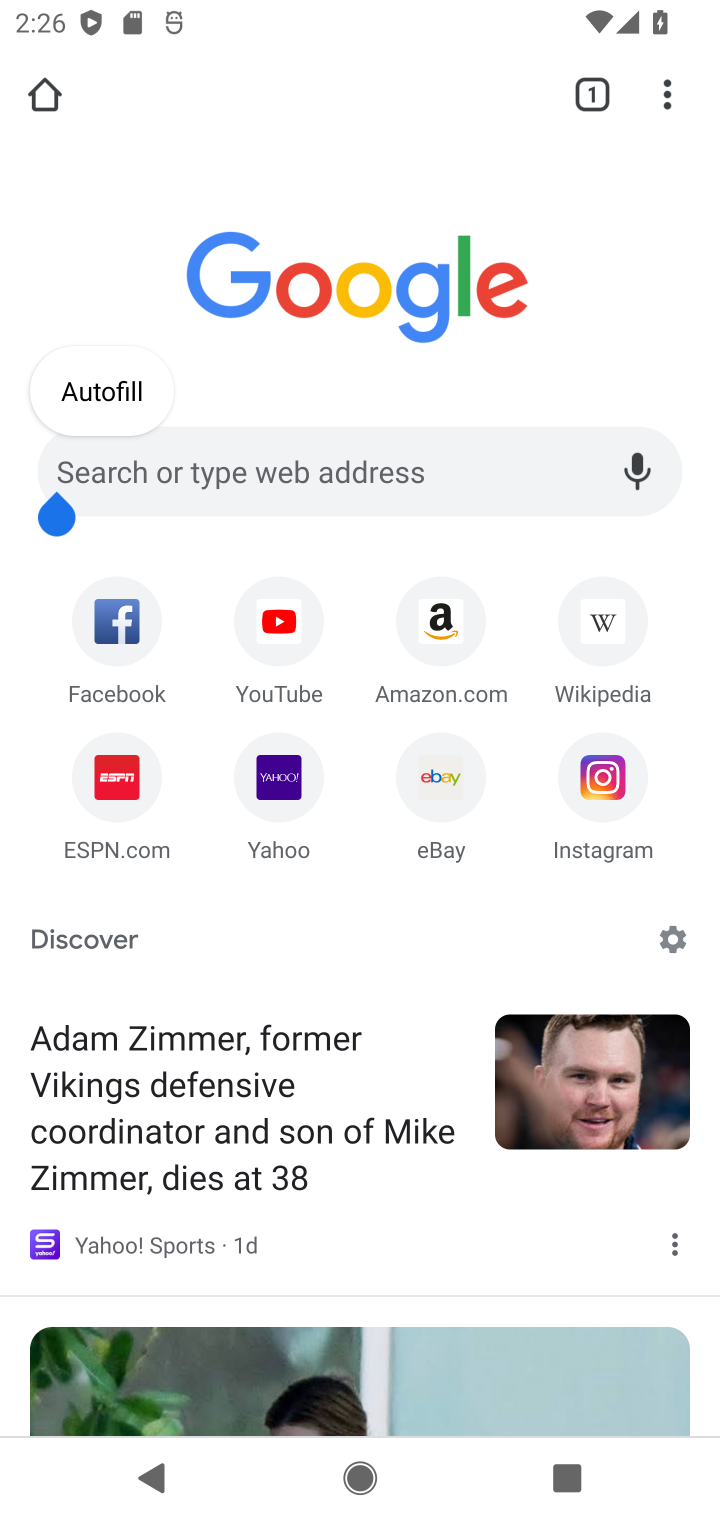
Step 23: click (312, 489)
Your task to perform on an android device: Search for rayovac triple a on bestbuy, select the first entry, add it to the cart, then select checkout. Image 24: 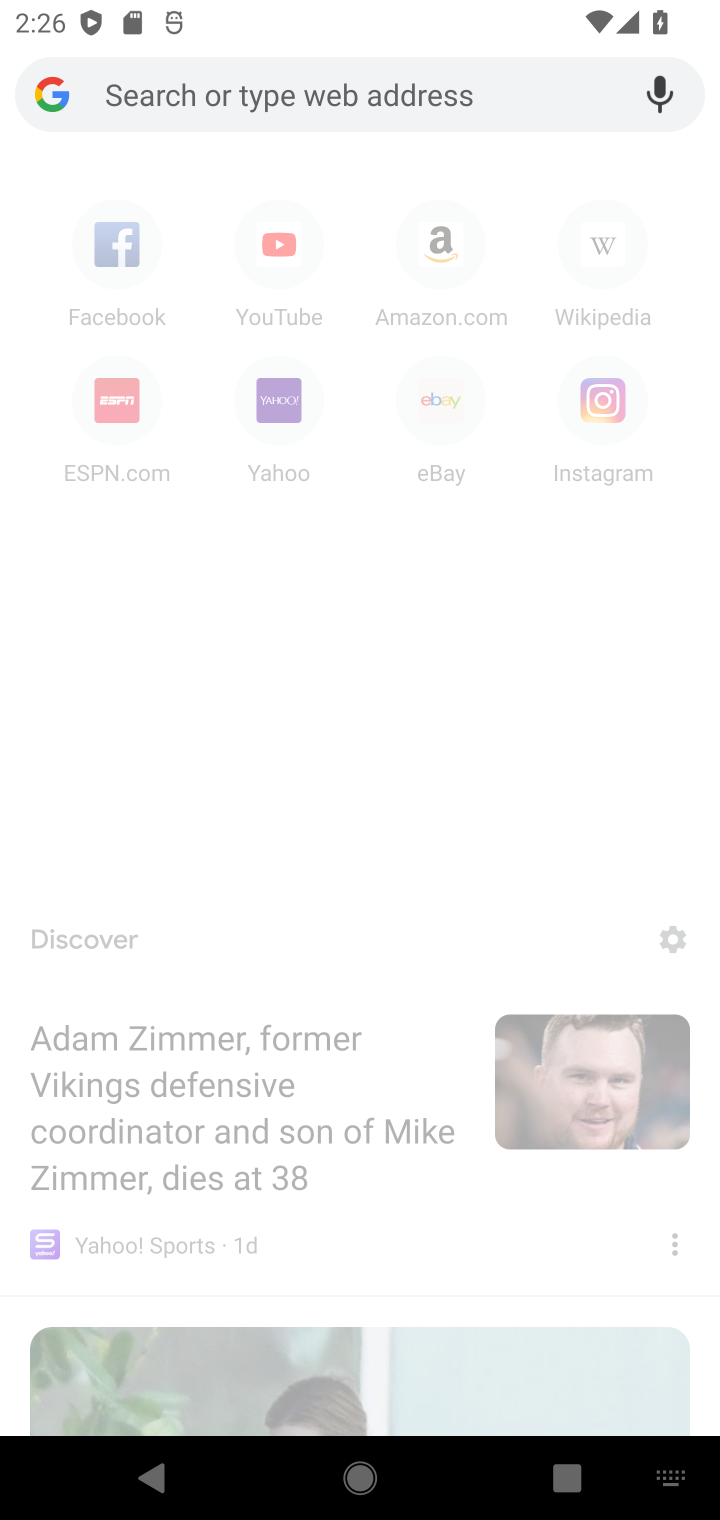
Step 24: task complete